Your task to perform on an android device: open app "Facebook Messenger" Image 0: 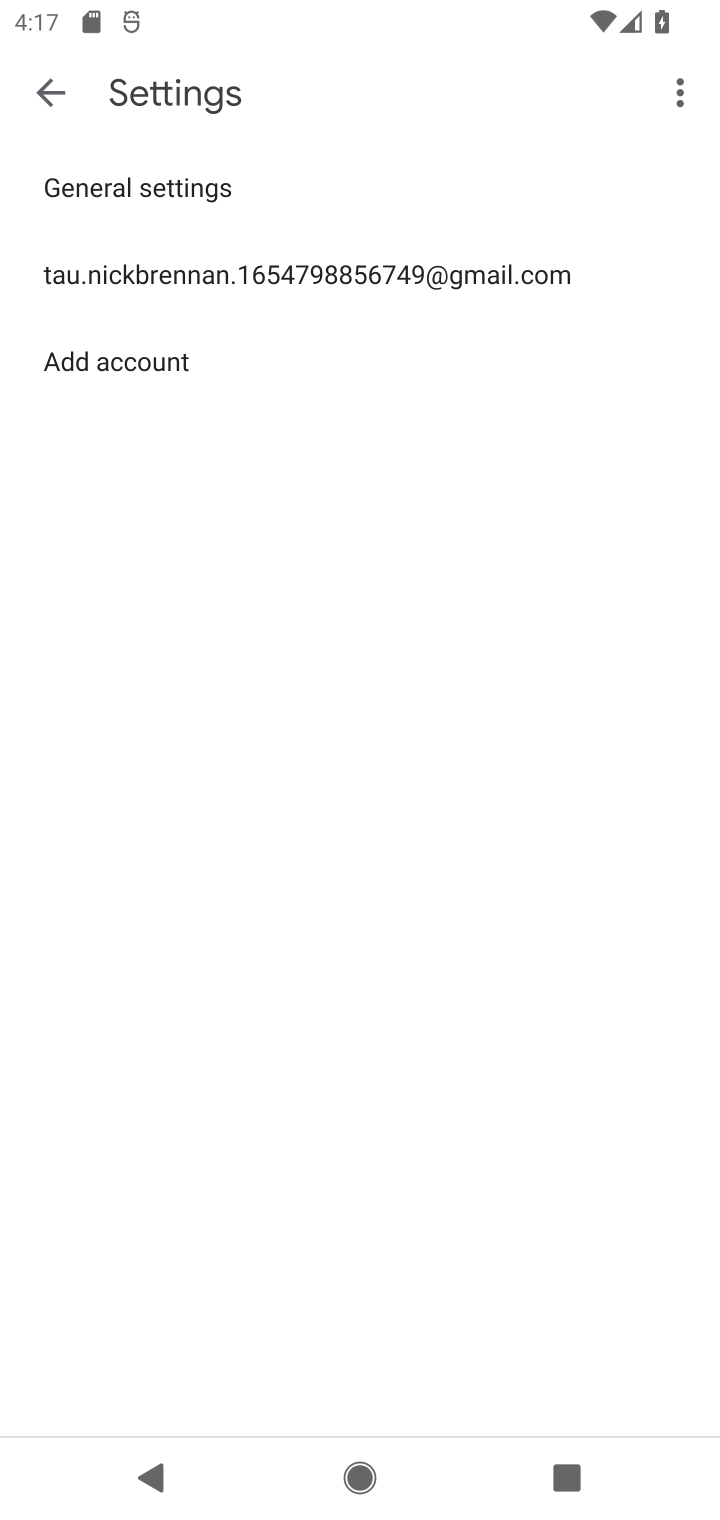
Step 0: press home button
Your task to perform on an android device: open app "Facebook Messenger" Image 1: 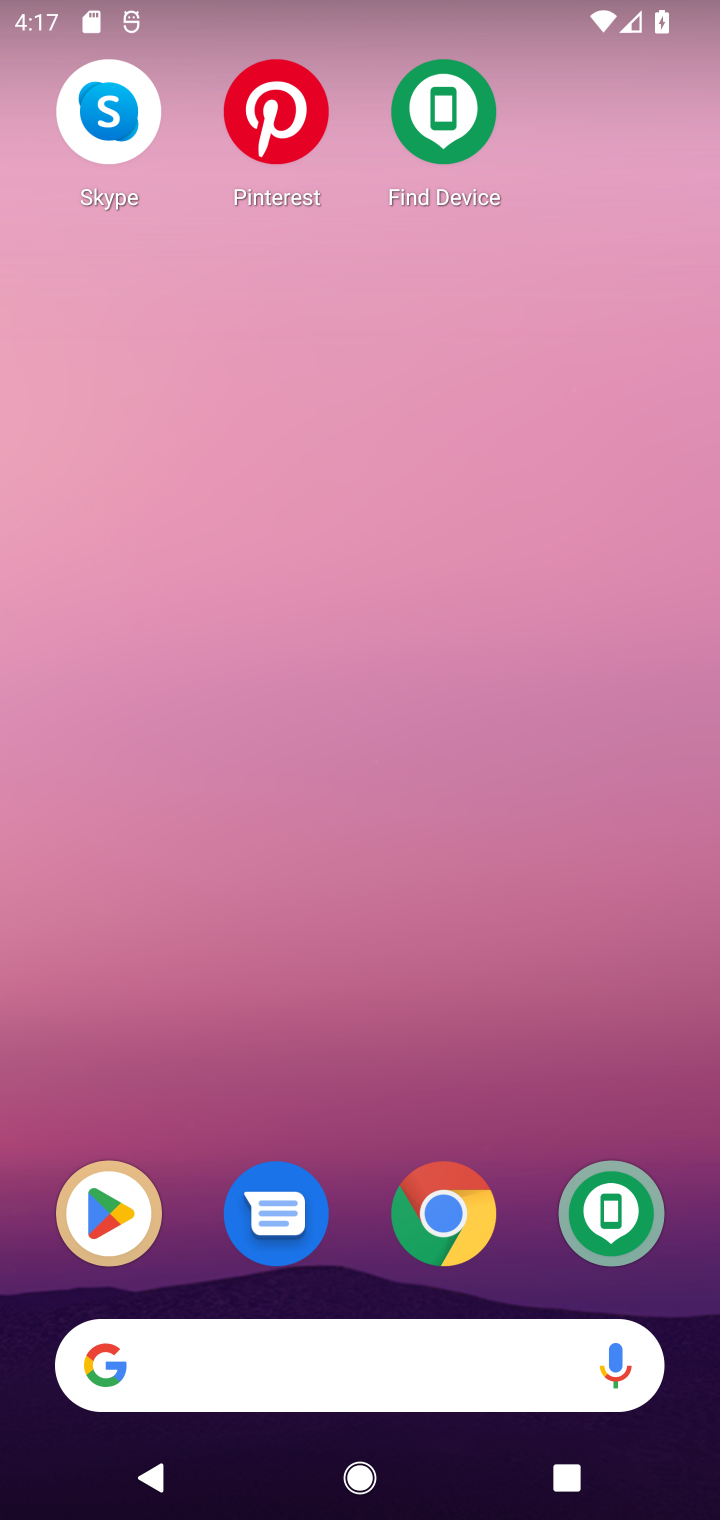
Step 1: drag from (563, 1099) to (655, 13)
Your task to perform on an android device: open app "Facebook Messenger" Image 2: 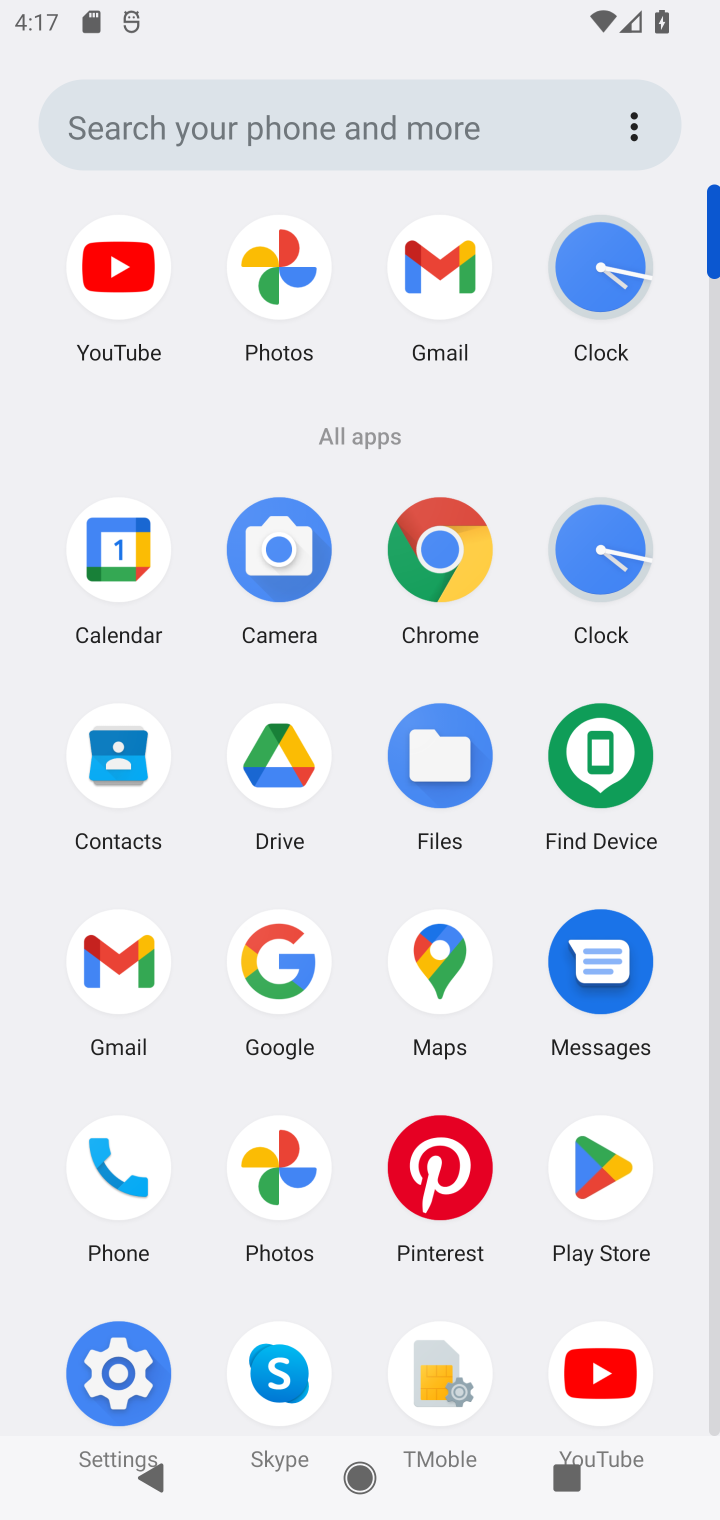
Step 2: click (642, 1155)
Your task to perform on an android device: open app "Facebook Messenger" Image 3: 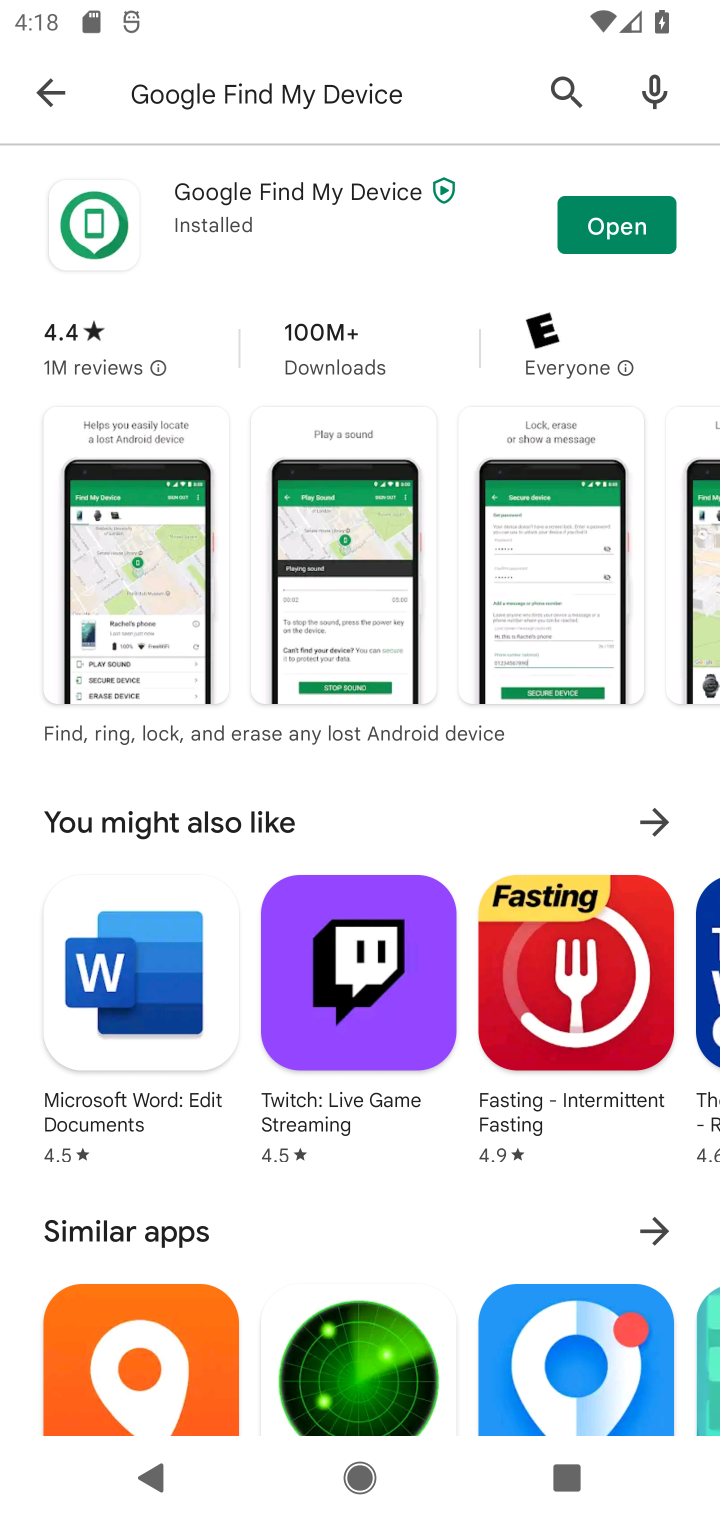
Step 3: click (326, 122)
Your task to perform on an android device: open app "Facebook Messenger" Image 4: 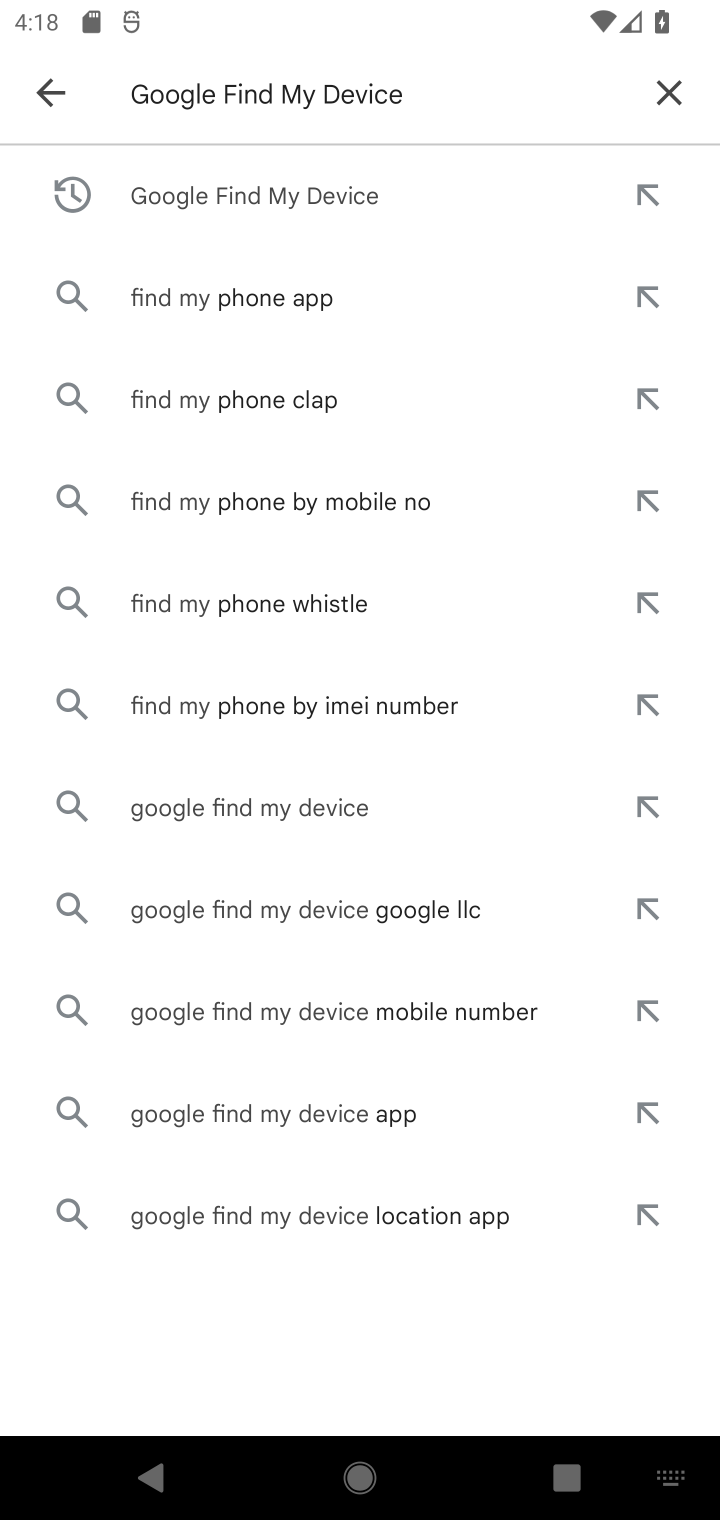
Step 4: click (671, 105)
Your task to perform on an android device: open app "Facebook Messenger" Image 5: 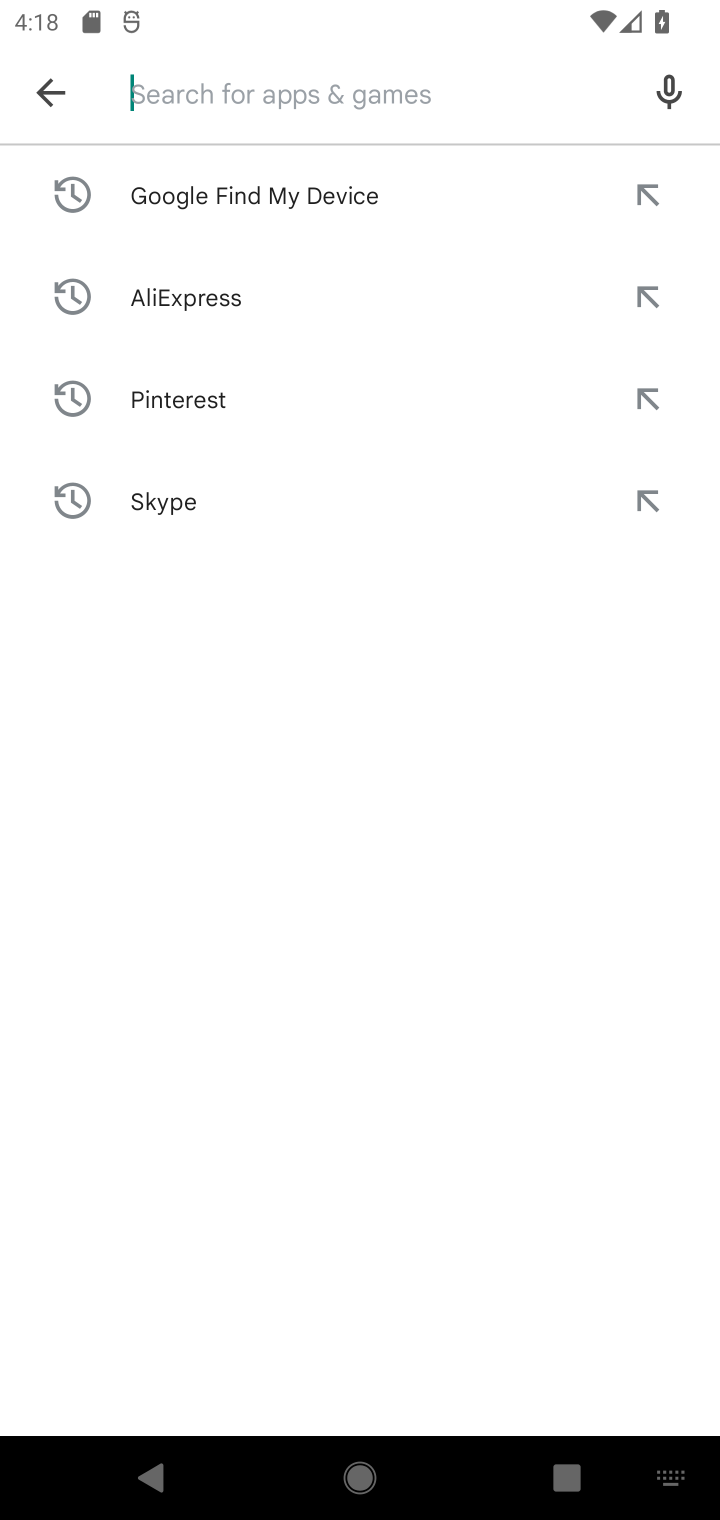
Step 5: type "Facebook Messenger"
Your task to perform on an android device: open app "Facebook Messenger" Image 6: 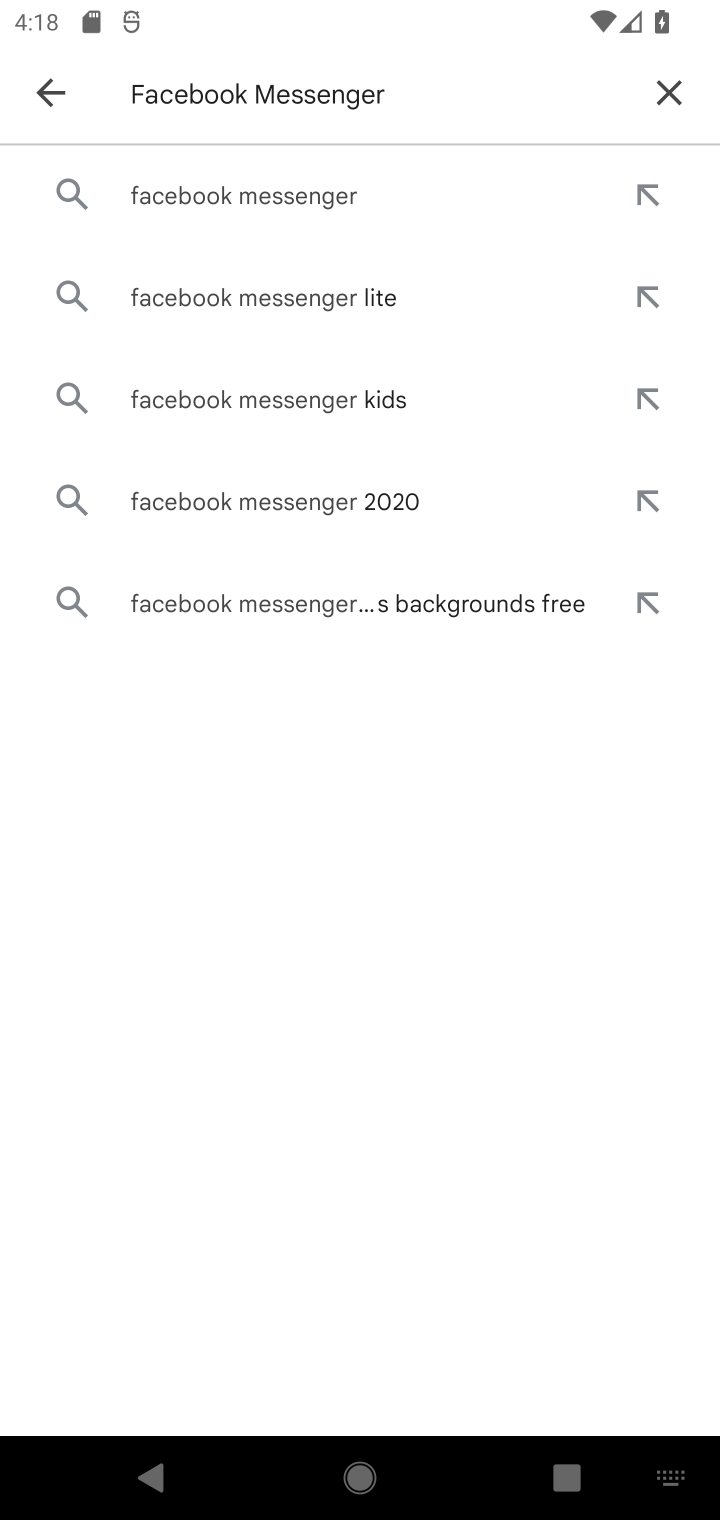
Step 6: press enter
Your task to perform on an android device: open app "Facebook Messenger" Image 7: 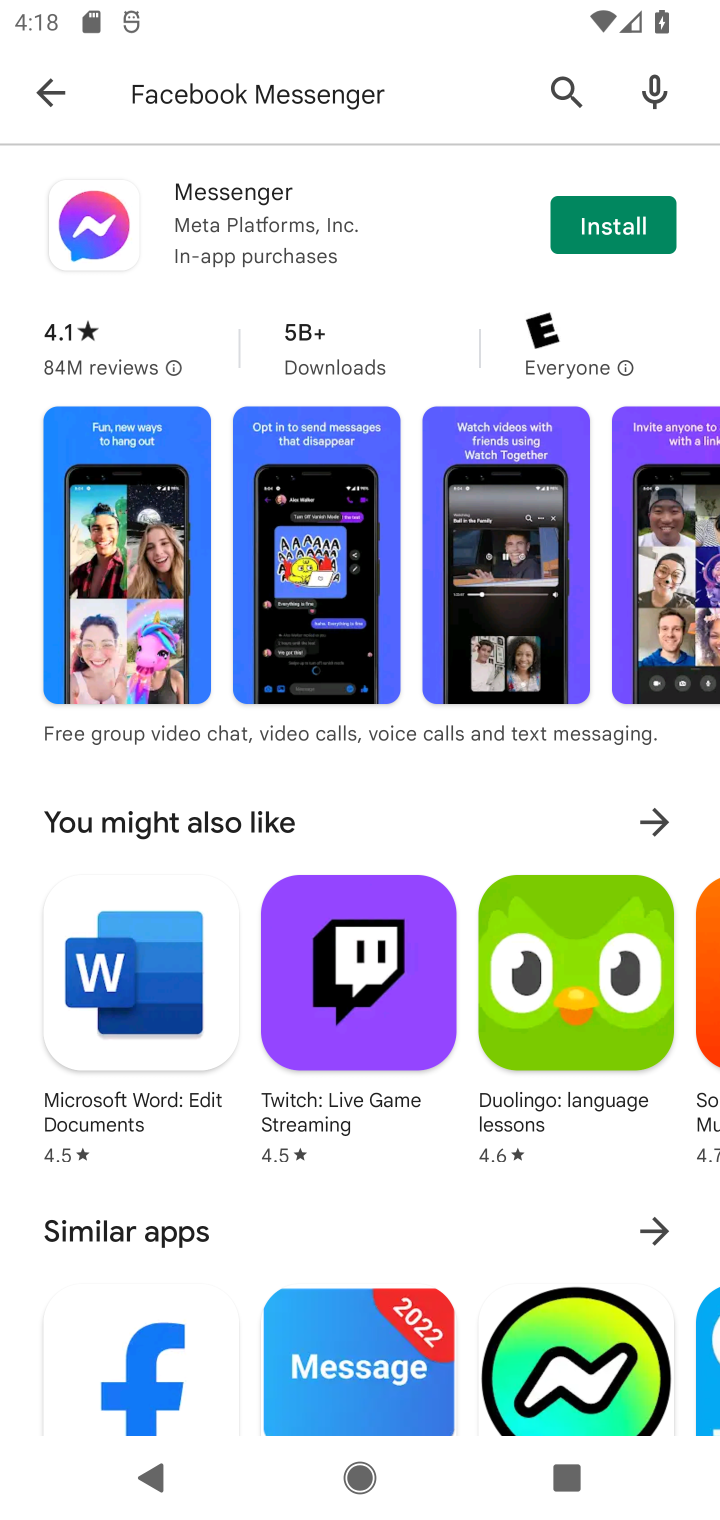
Step 7: task complete